Your task to perform on an android device: What's the news in Thailand? Image 0: 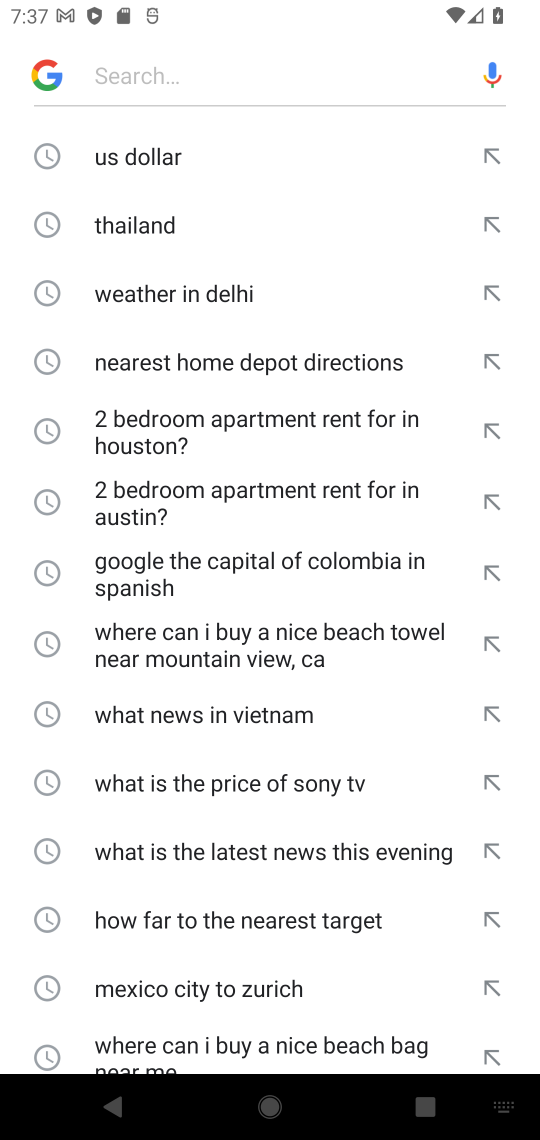
Step 0: press home button
Your task to perform on an android device: What's the news in Thailand? Image 1: 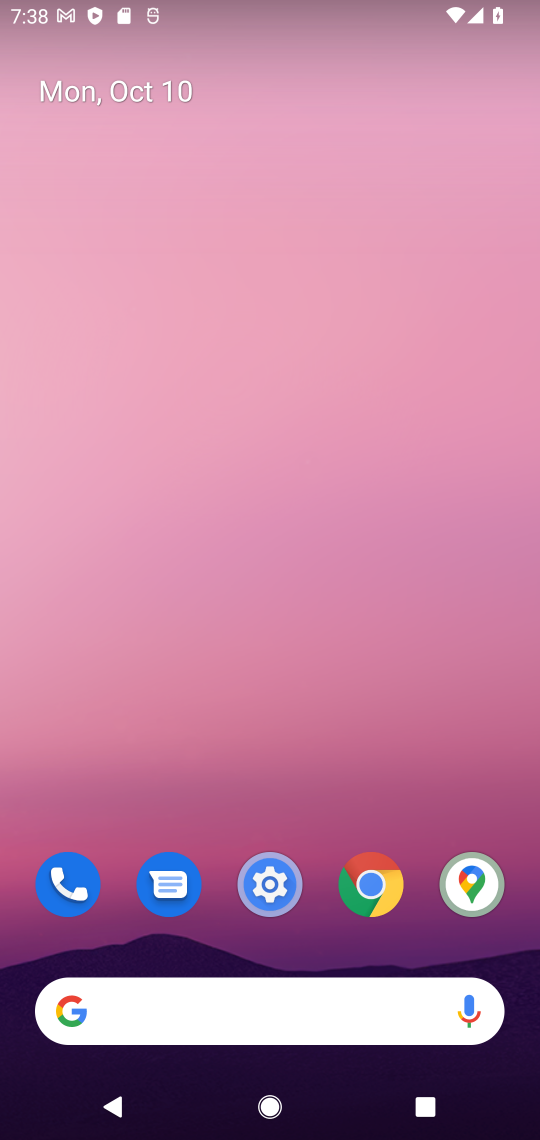
Step 1: click (361, 889)
Your task to perform on an android device: What's the news in Thailand? Image 2: 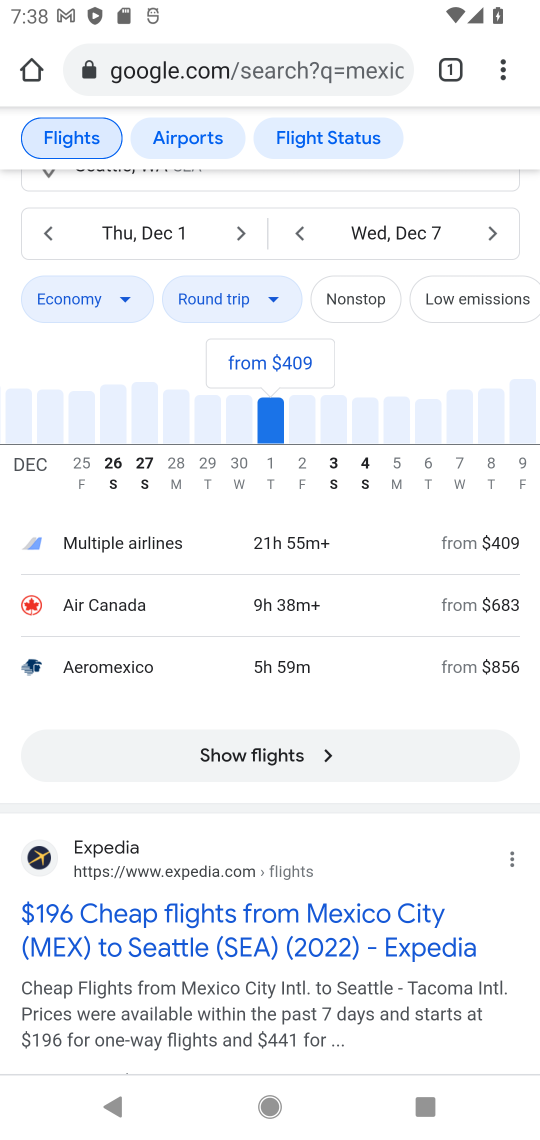
Step 2: click (254, 83)
Your task to perform on an android device: What's the news in Thailand? Image 3: 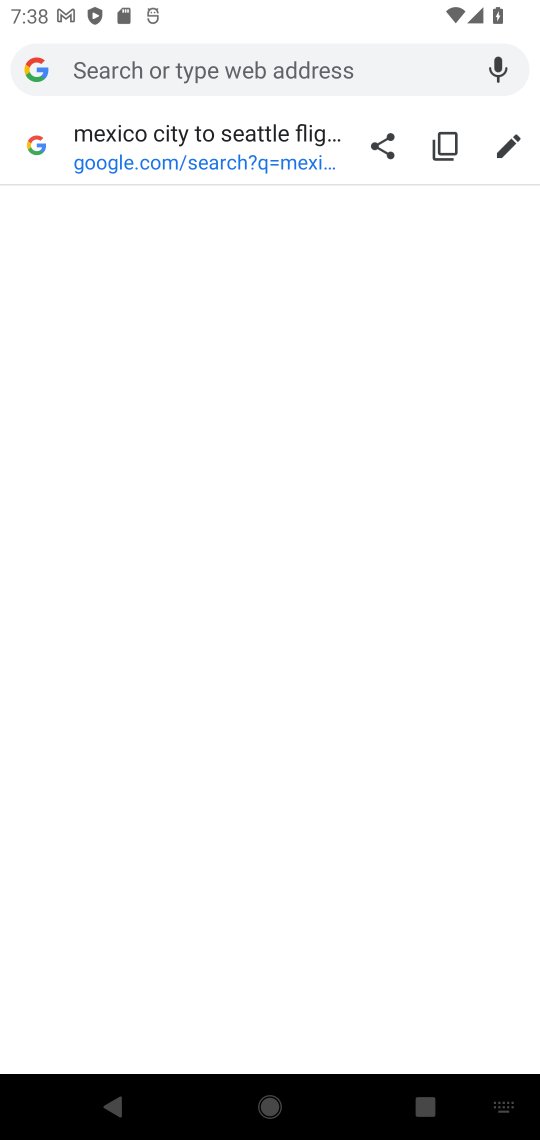
Step 3: type "thailand"
Your task to perform on an android device: What's the news in Thailand? Image 4: 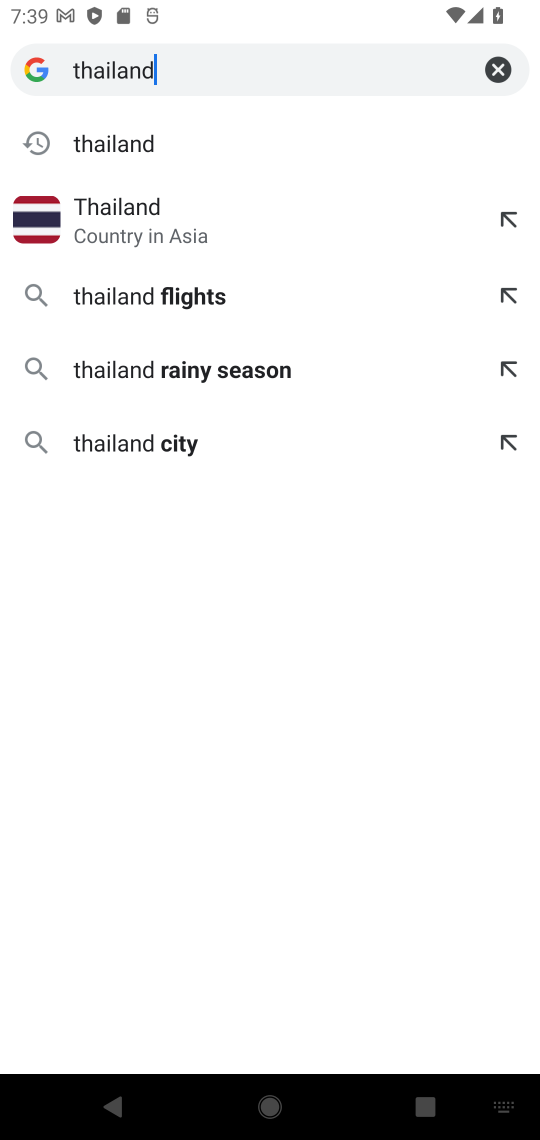
Step 4: click (152, 142)
Your task to perform on an android device: What's the news in Thailand? Image 5: 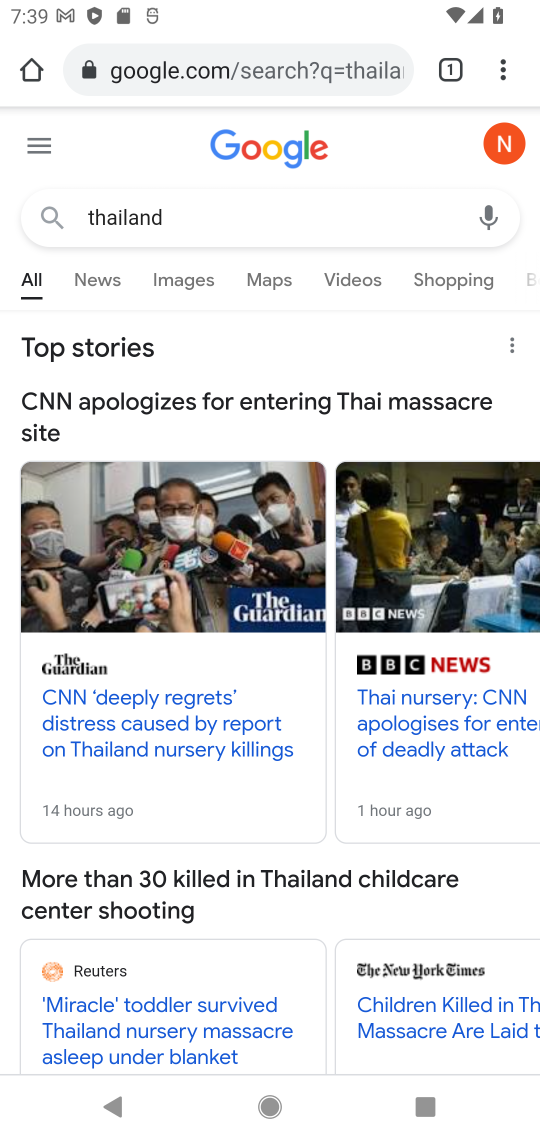
Step 5: click (115, 280)
Your task to perform on an android device: What's the news in Thailand? Image 6: 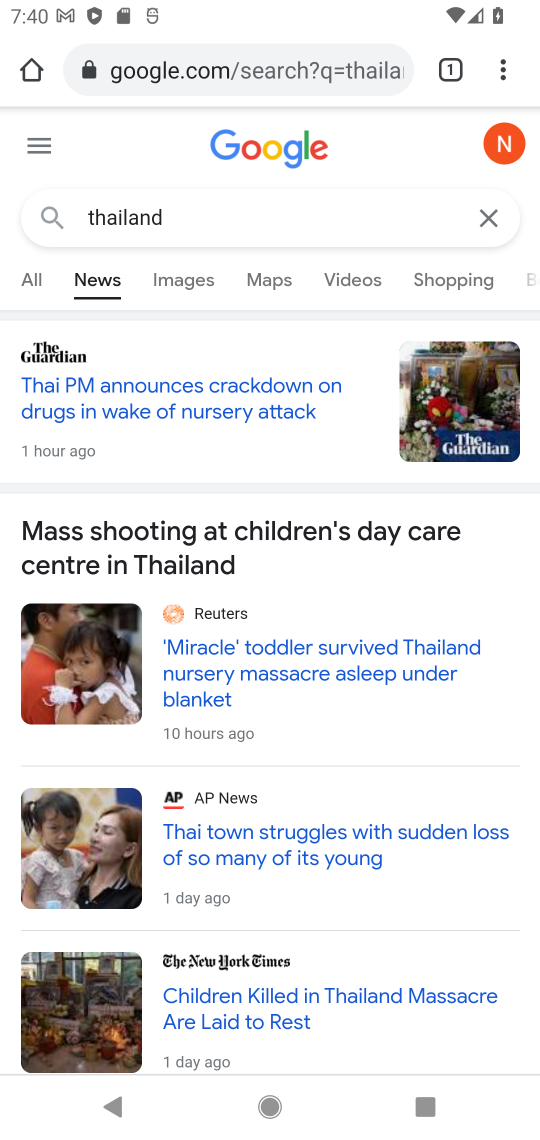
Step 6: task complete